Your task to perform on an android device: Go to Reddit.com Image 0: 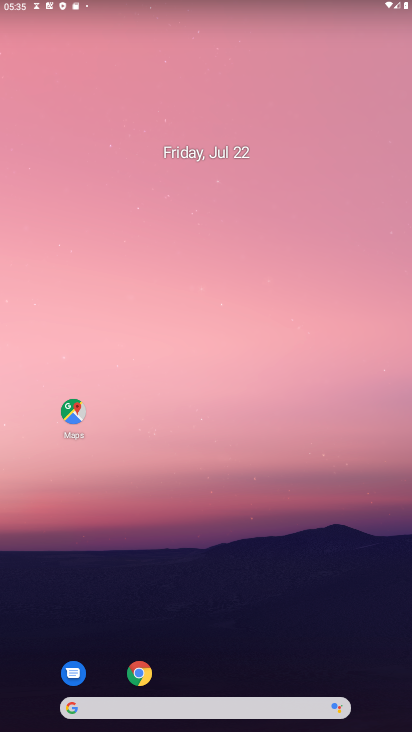
Step 0: press home button
Your task to perform on an android device: Go to Reddit.com Image 1: 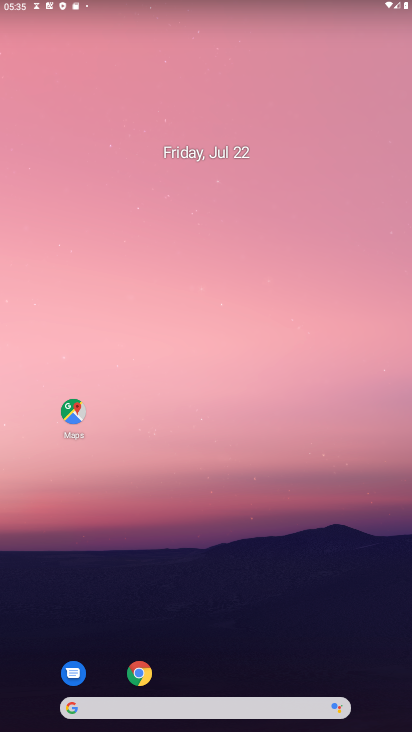
Step 1: press home button
Your task to perform on an android device: Go to Reddit.com Image 2: 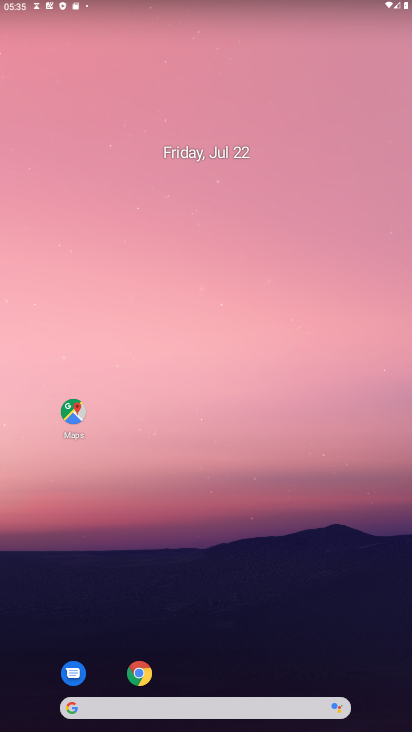
Step 2: click (67, 707)
Your task to perform on an android device: Go to Reddit.com Image 3: 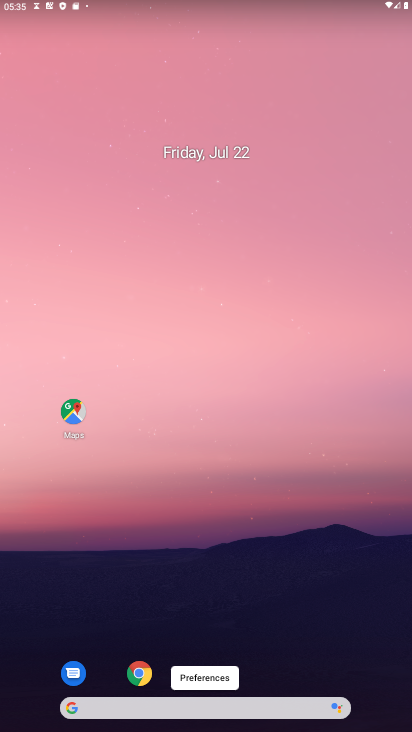
Step 3: click (74, 709)
Your task to perform on an android device: Go to Reddit.com Image 4: 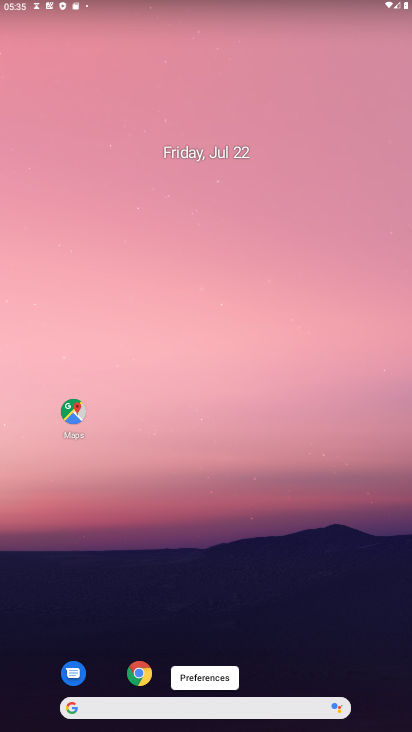
Step 4: click (72, 703)
Your task to perform on an android device: Go to Reddit.com Image 5: 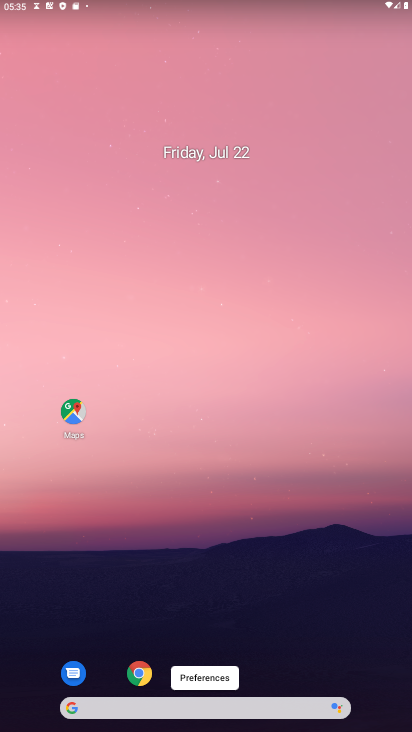
Step 5: click (67, 699)
Your task to perform on an android device: Go to Reddit.com Image 6: 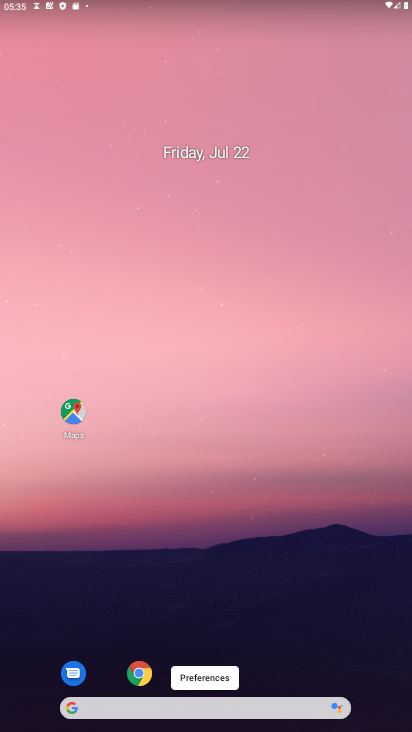
Step 6: click (70, 709)
Your task to perform on an android device: Go to Reddit.com Image 7: 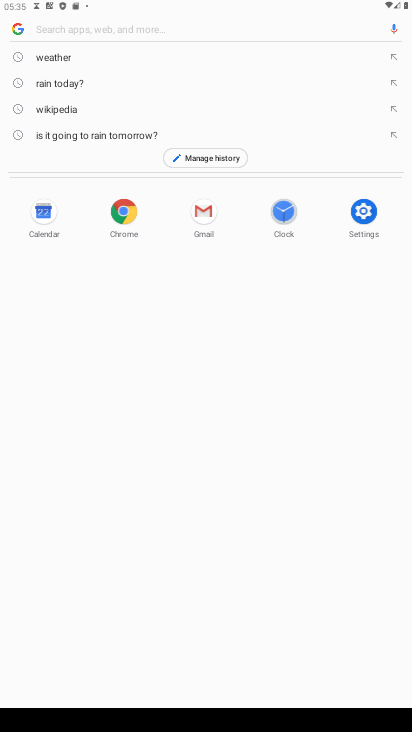
Step 7: type "Reddit.com"
Your task to perform on an android device: Go to Reddit.com Image 8: 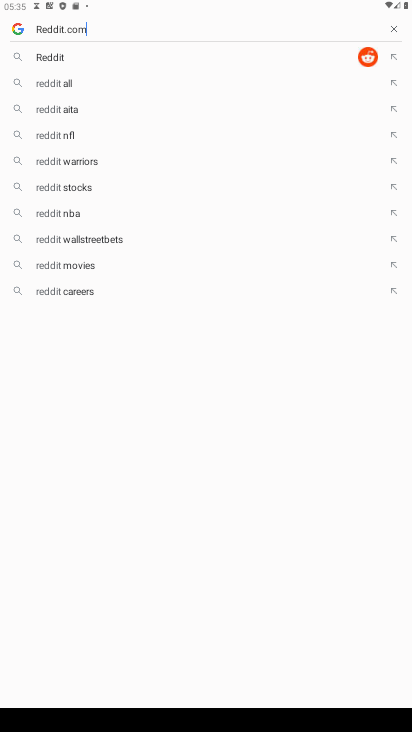
Step 8: press enter
Your task to perform on an android device: Go to Reddit.com Image 9: 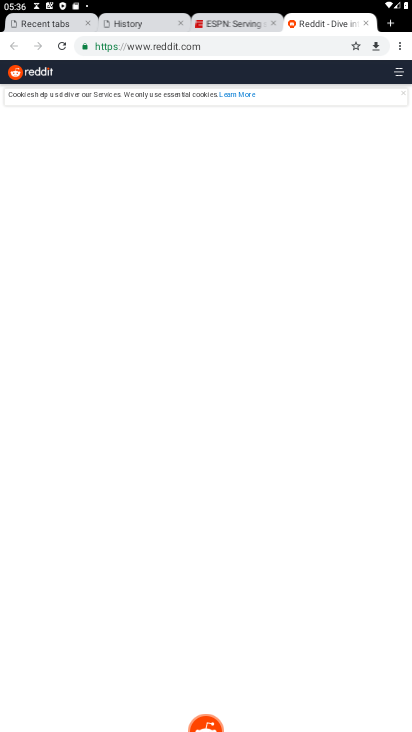
Step 9: task complete